Your task to perform on an android device: toggle airplane mode Image 0: 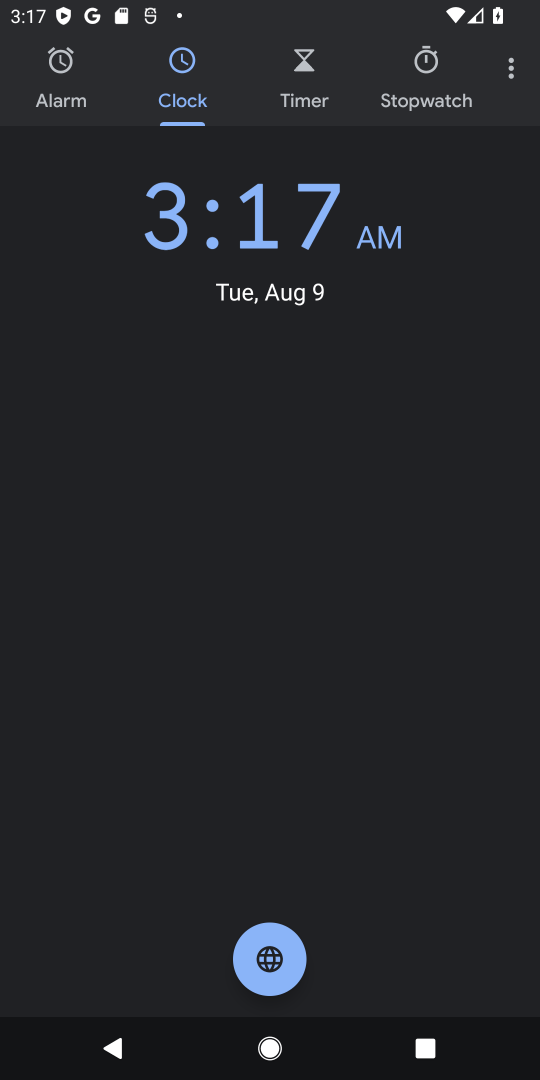
Step 0: press home button
Your task to perform on an android device: toggle airplane mode Image 1: 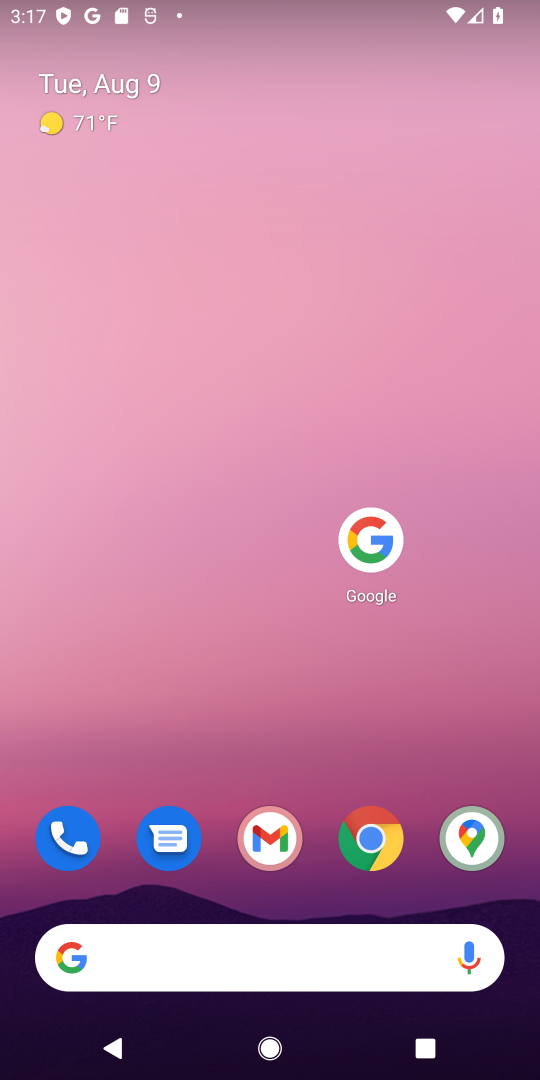
Step 1: drag from (284, 741) to (448, 94)
Your task to perform on an android device: toggle airplane mode Image 2: 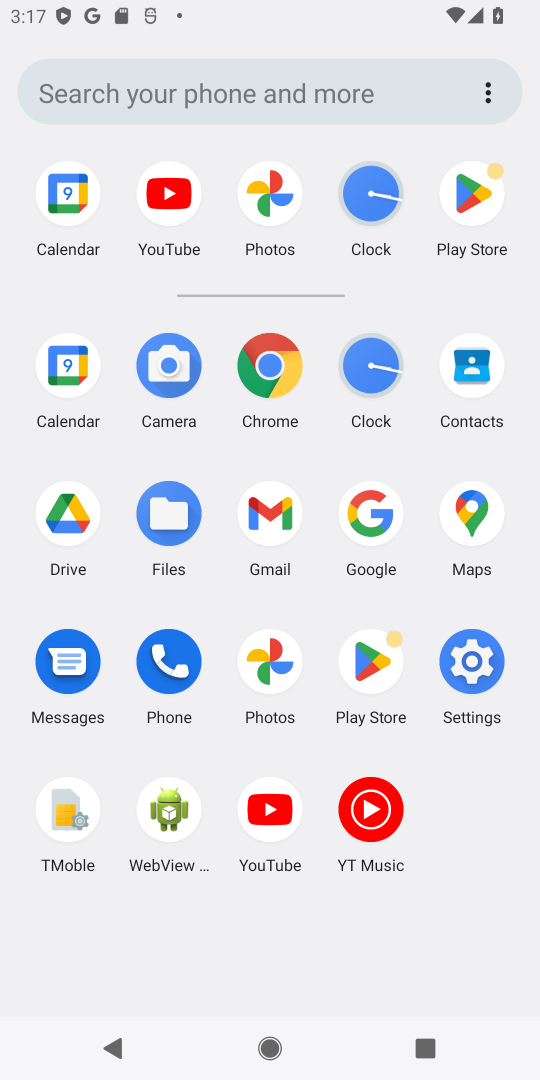
Step 2: click (478, 659)
Your task to perform on an android device: toggle airplane mode Image 3: 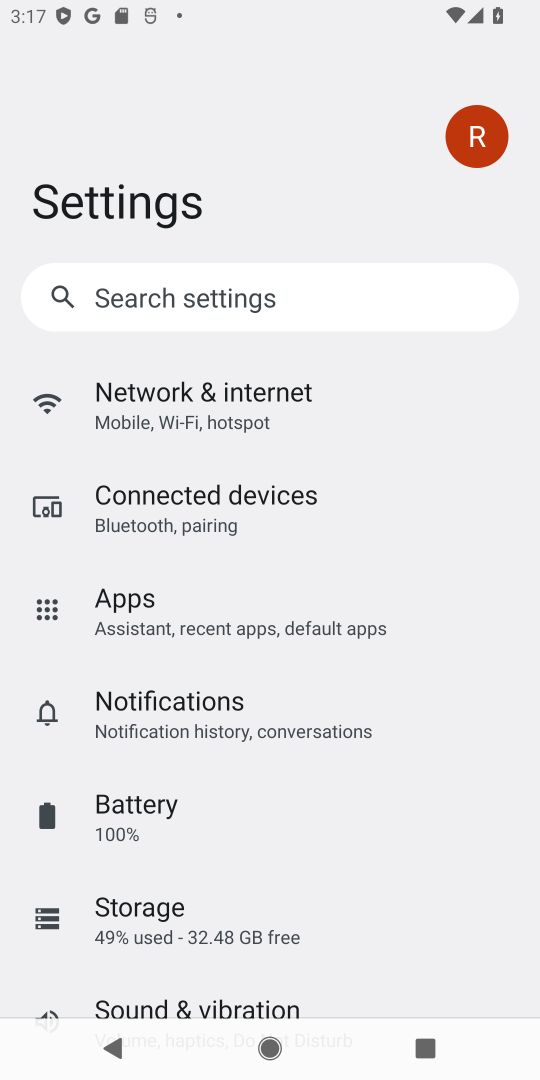
Step 3: click (202, 401)
Your task to perform on an android device: toggle airplane mode Image 4: 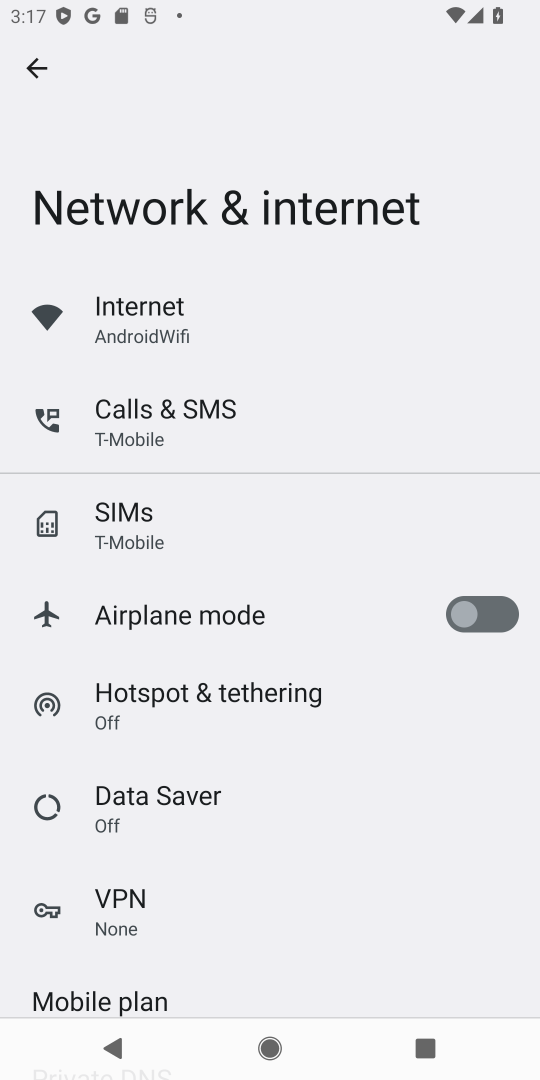
Step 4: click (445, 603)
Your task to perform on an android device: toggle airplane mode Image 5: 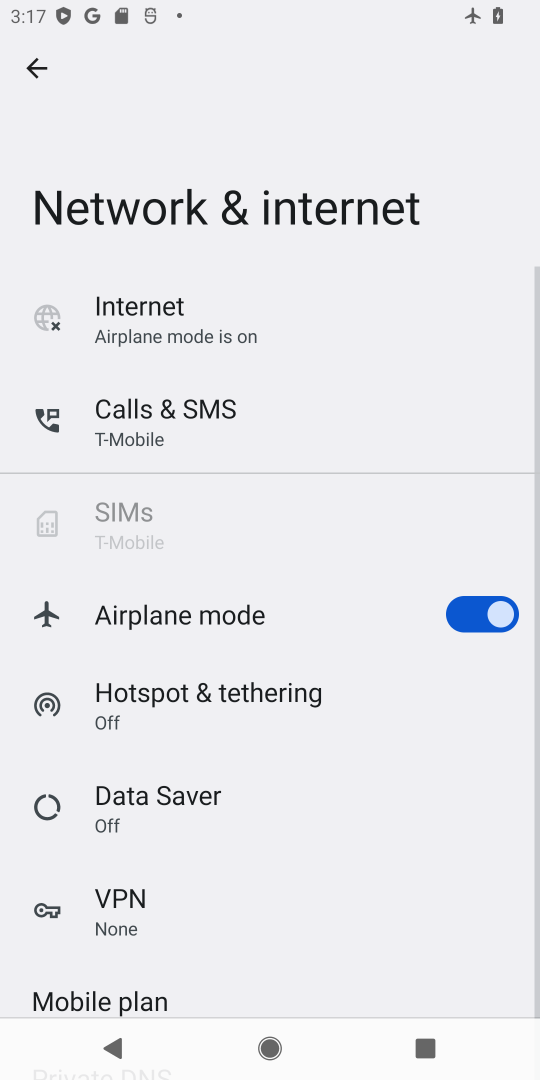
Step 5: task complete